Your task to perform on an android device: Go to eBay Image 0: 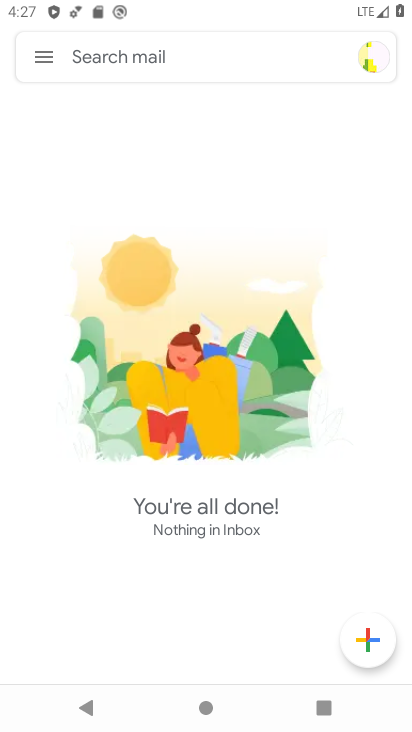
Step 0: press back button
Your task to perform on an android device: Go to eBay Image 1: 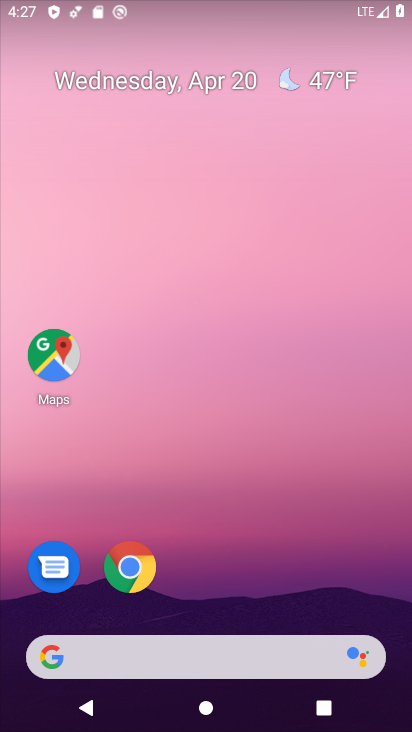
Step 1: drag from (186, 298) to (180, 50)
Your task to perform on an android device: Go to eBay Image 2: 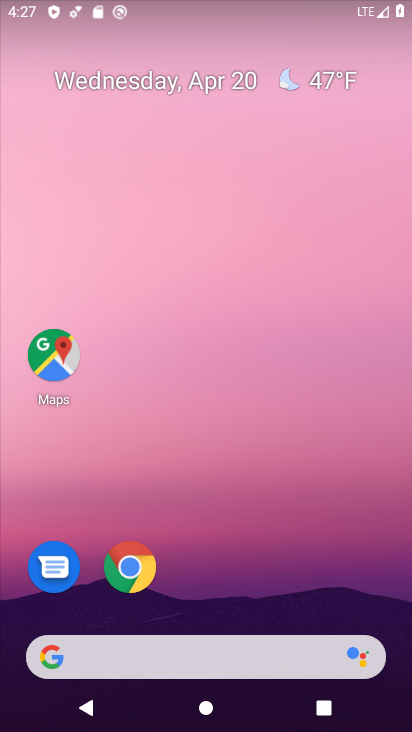
Step 2: drag from (369, 557) to (339, 49)
Your task to perform on an android device: Go to eBay Image 3: 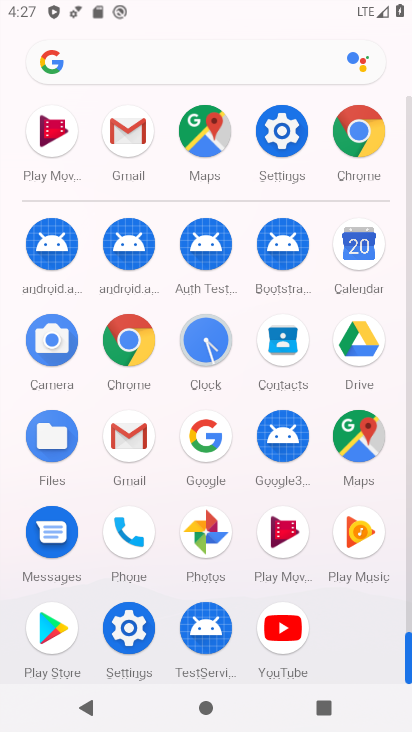
Step 3: click (355, 124)
Your task to perform on an android device: Go to eBay Image 4: 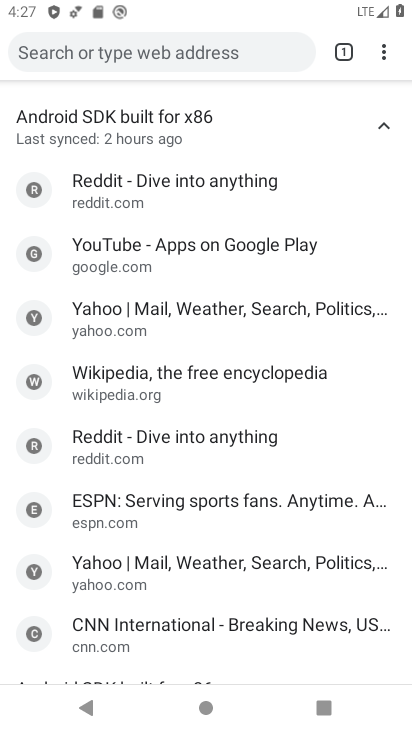
Step 4: click (226, 50)
Your task to perform on an android device: Go to eBay Image 5: 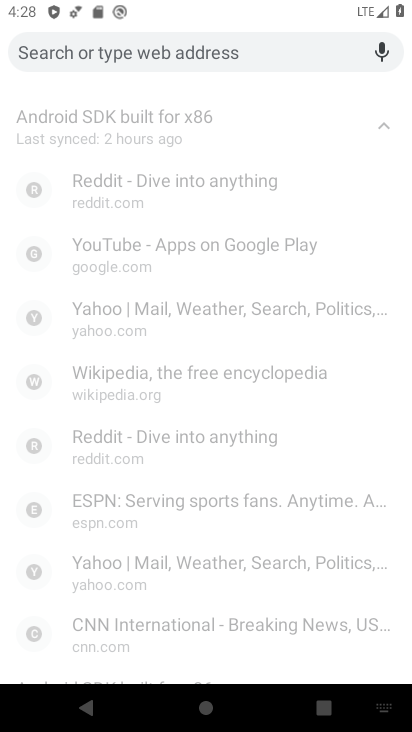
Step 5: click (102, 44)
Your task to perform on an android device: Go to eBay Image 6: 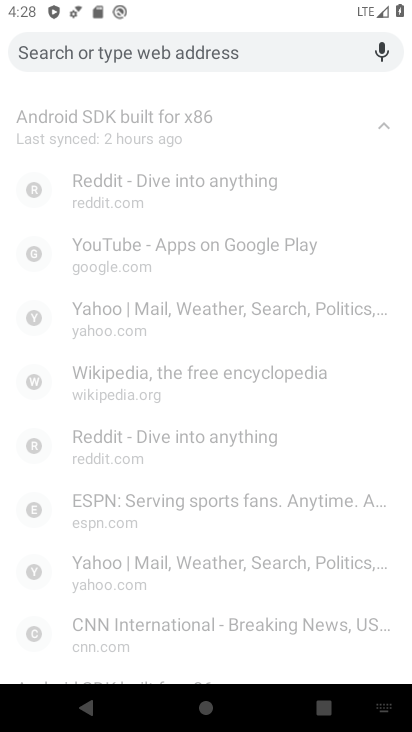
Step 6: type "eBay"
Your task to perform on an android device: Go to eBay Image 7: 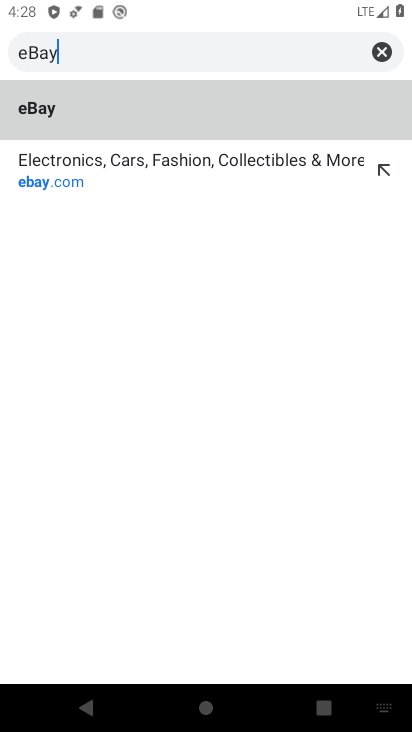
Step 7: type ""
Your task to perform on an android device: Go to eBay Image 8: 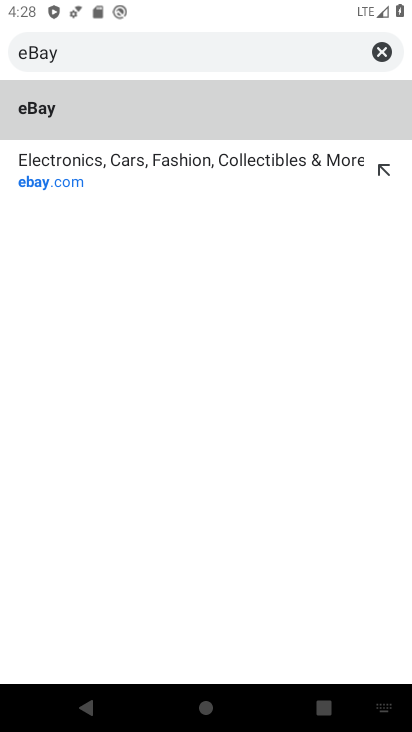
Step 8: click (182, 115)
Your task to perform on an android device: Go to eBay Image 9: 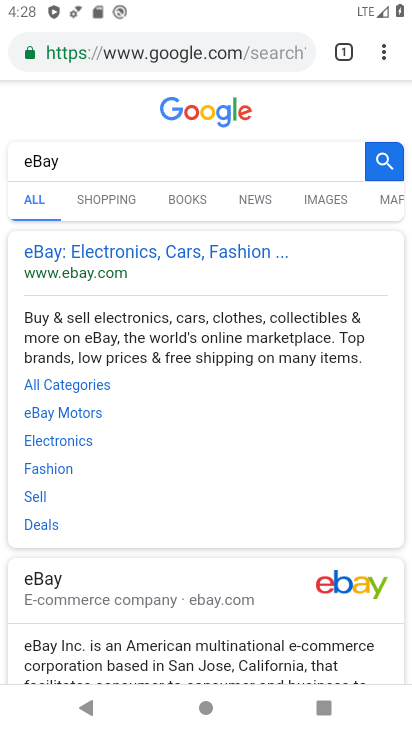
Step 9: click (87, 245)
Your task to perform on an android device: Go to eBay Image 10: 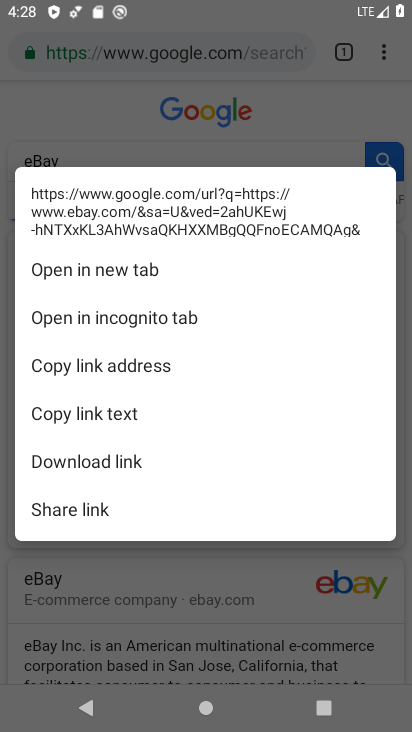
Step 10: click (136, 91)
Your task to perform on an android device: Go to eBay Image 11: 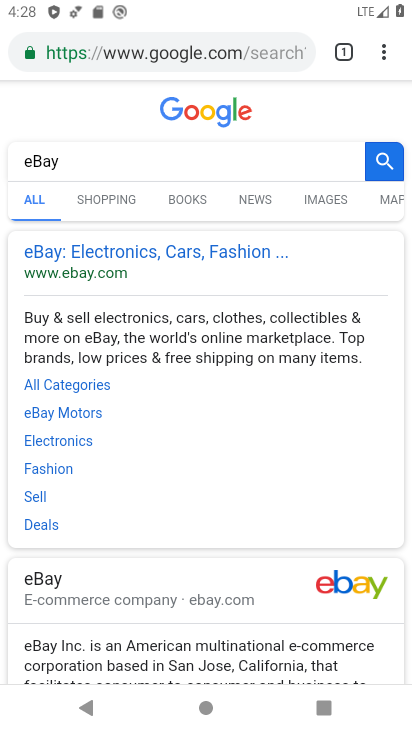
Step 11: click (75, 246)
Your task to perform on an android device: Go to eBay Image 12: 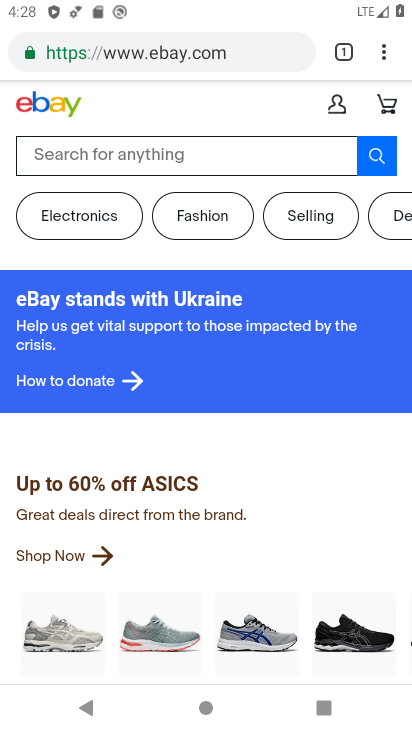
Step 12: task complete